Your task to perform on an android device: turn off notifications in google photos Image 0: 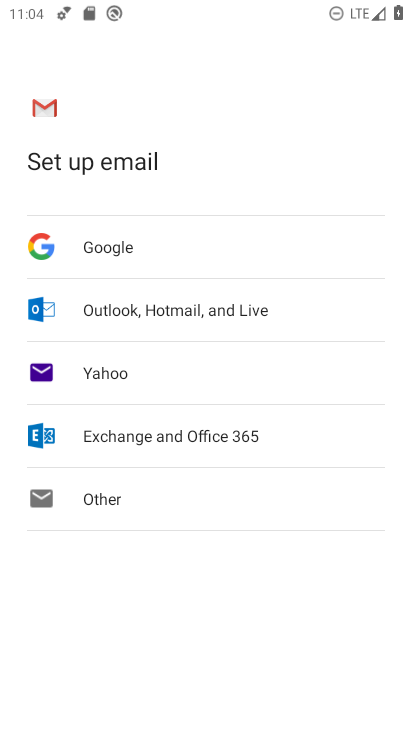
Step 0: press home button
Your task to perform on an android device: turn off notifications in google photos Image 1: 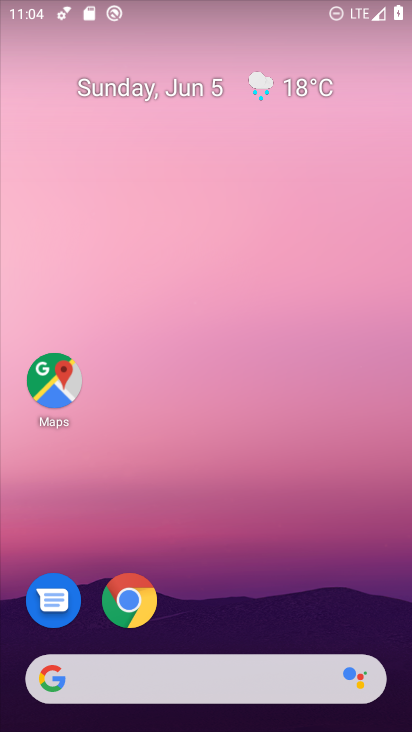
Step 1: drag from (215, 618) to (248, 382)
Your task to perform on an android device: turn off notifications in google photos Image 2: 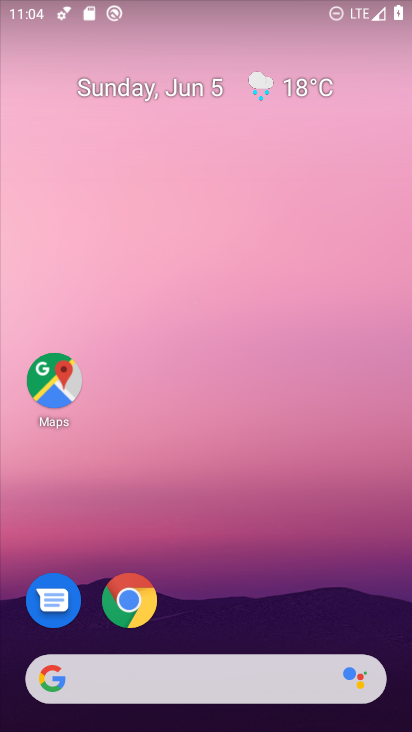
Step 2: drag from (216, 619) to (264, 300)
Your task to perform on an android device: turn off notifications in google photos Image 3: 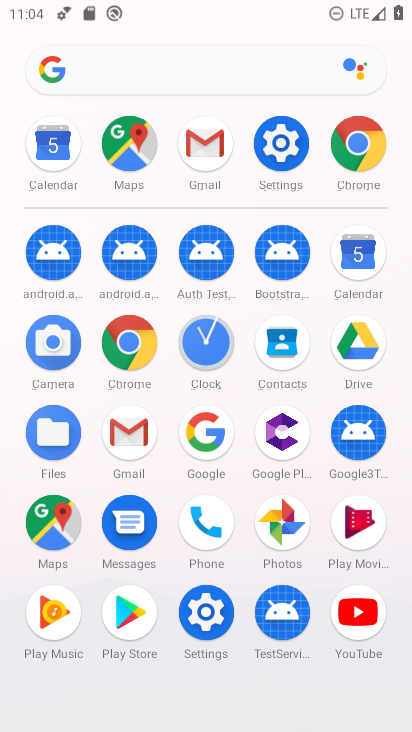
Step 3: click (289, 514)
Your task to perform on an android device: turn off notifications in google photos Image 4: 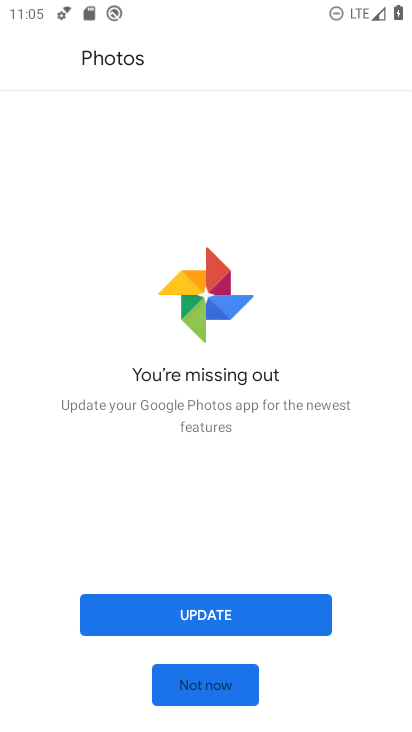
Step 4: click (212, 689)
Your task to perform on an android device: turn off notifications in google photos Image 5: 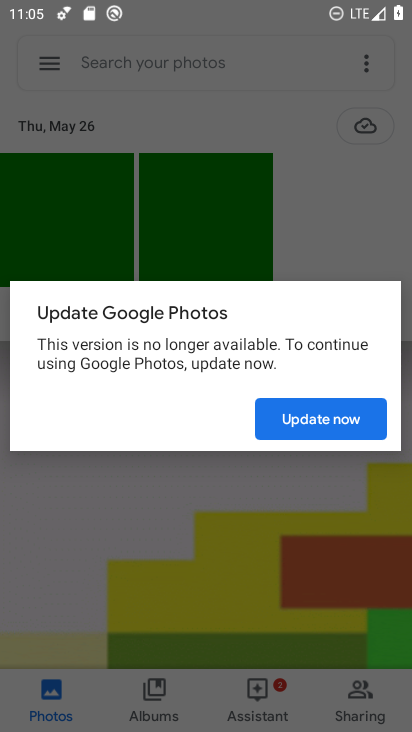
Step 5: click (310, 420)
Your task to perform on an android device: turn off notifications in google photos Image 6: 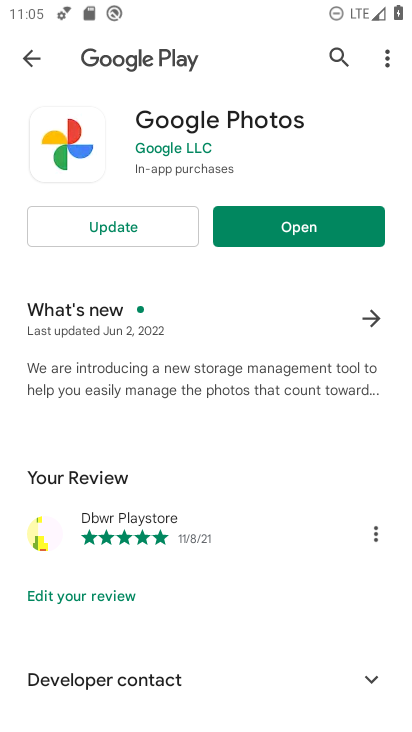
Step 6: click (312, 219)
Your task to perform on an android device: turn off notifications in google photos Image 7: 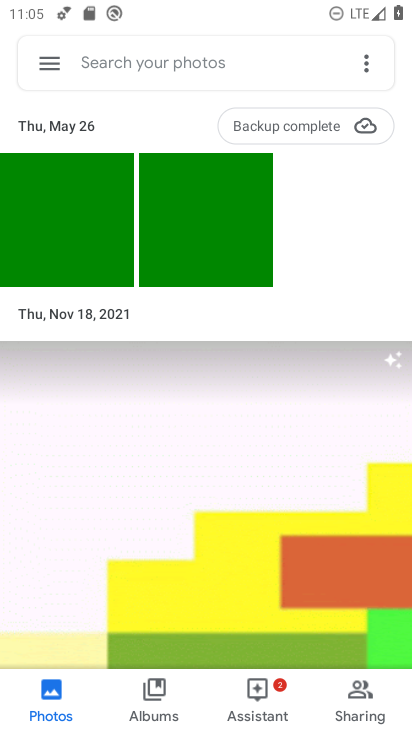
Step 7: click (62, 54)
Your task to perform on an android device: turn off notifications in google photos Image 8: 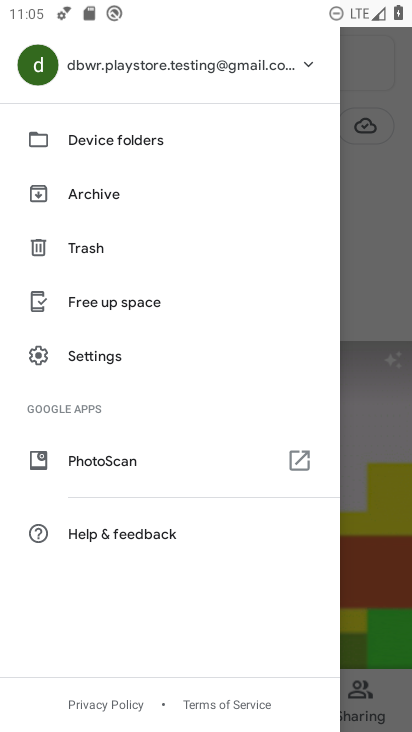
Step 8: click (103, 367)
Your task to perform on an android device: turn off notifications in google photos Image 9: 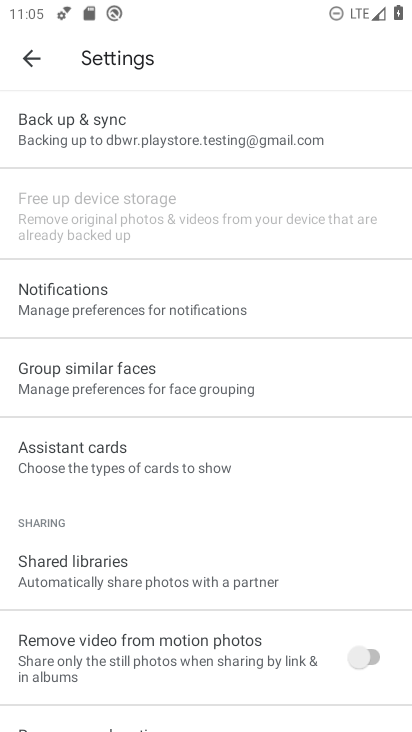
Step 9: click (146, 279)
Your task to perform on an android device: turn off notifications in google photos Image 10: 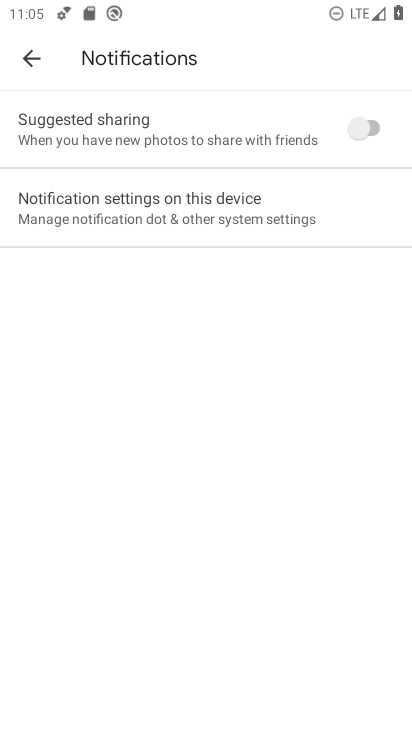
Step 10: click (157, 215)
Your task to perform on an android device: turn off notifications in google photos Image 11: 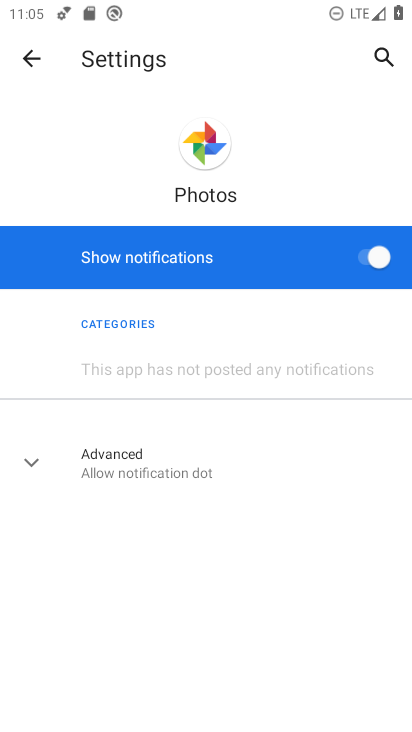
Step 11: click (209, 474)
Your task to perform on an android device: turn off notifications in google photos Image 12: 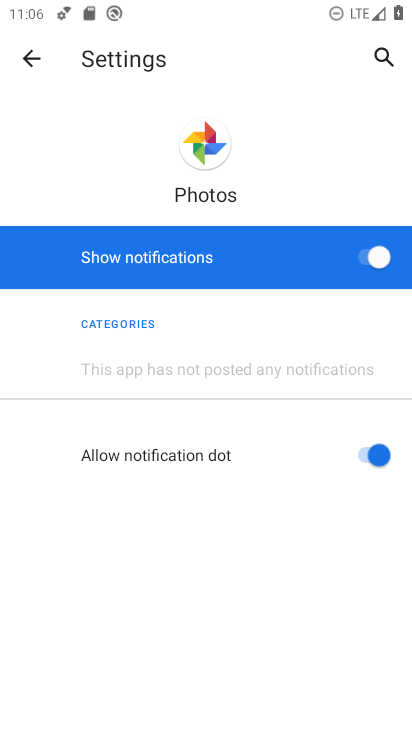
Step 12: click (362, 262)
Your task to perform on an android device: turn off notifications in google photos Image 13: 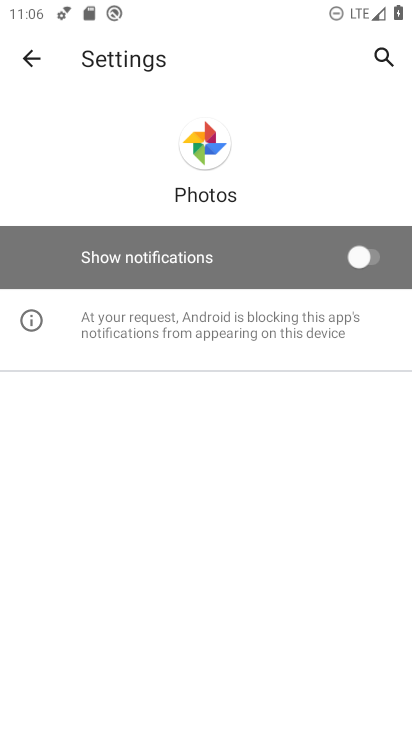
Step 13: task complete